Your task to perform on an android device: find photos in the google photos app Image 0: 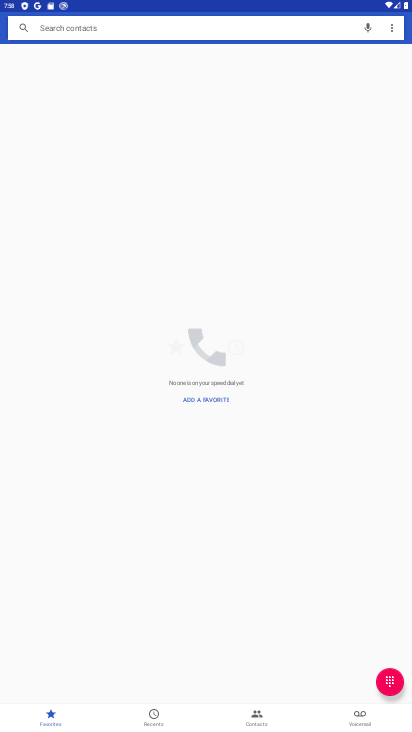
Step 0: press home button
Your task to perform on an android device: find photos in the google photos app Image 1: 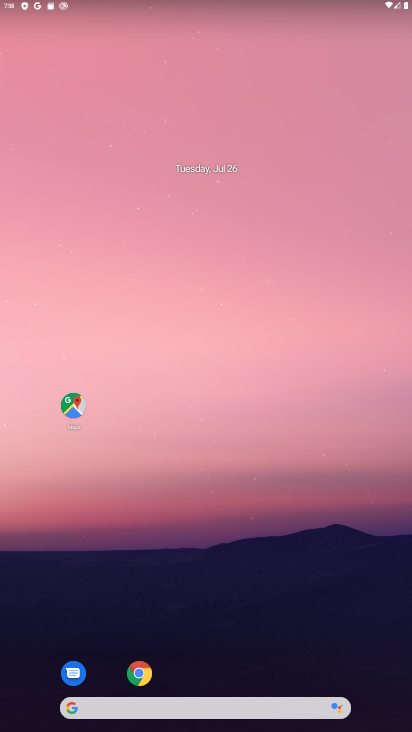
Step 1: drag from (231, 663) to (264, 175)
Your task to perform on an android device: find photos in the google photos app Image 2: 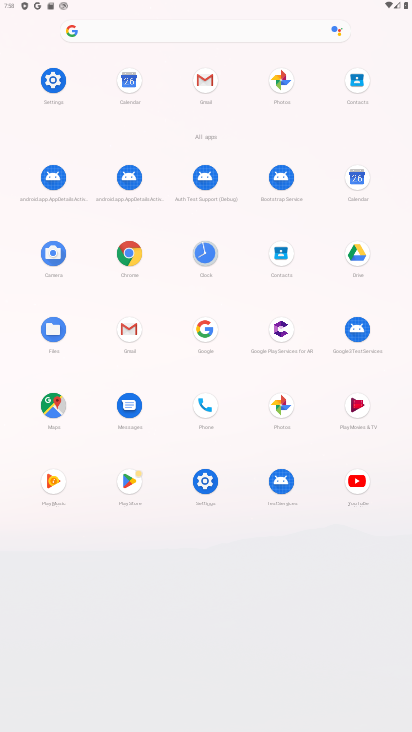
Step 2: click (280, 86)
Your task to perform on an android device: find photos in the google photos app Image 3: 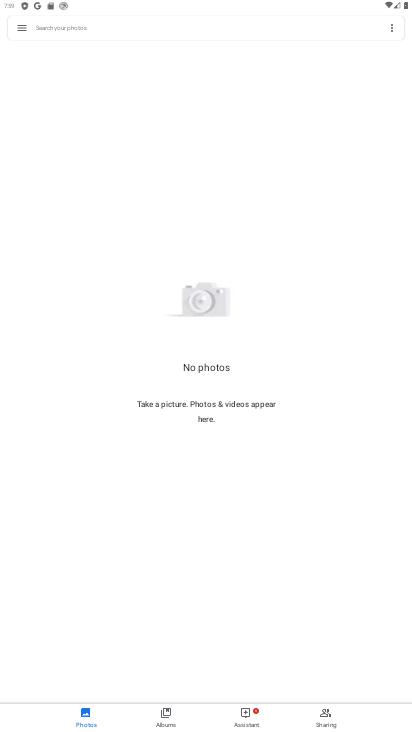
Step 3: click (59, 27)
Your task to perform on an android device: find photos in the google photos app Image 4: 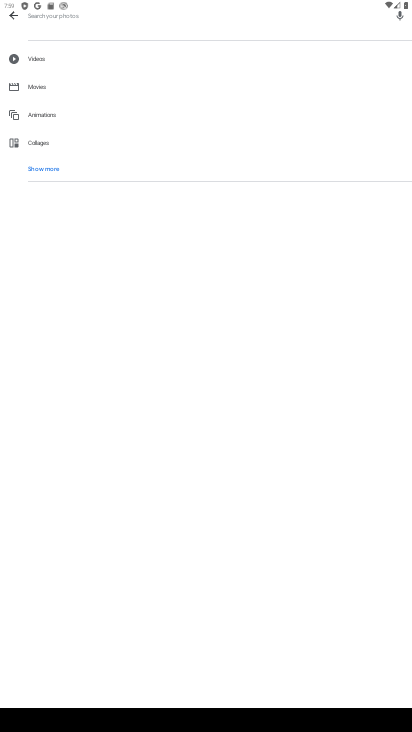
Step 4: type "aaa"
Your task to perform on an android device: find photos in the google photos app Image 5: 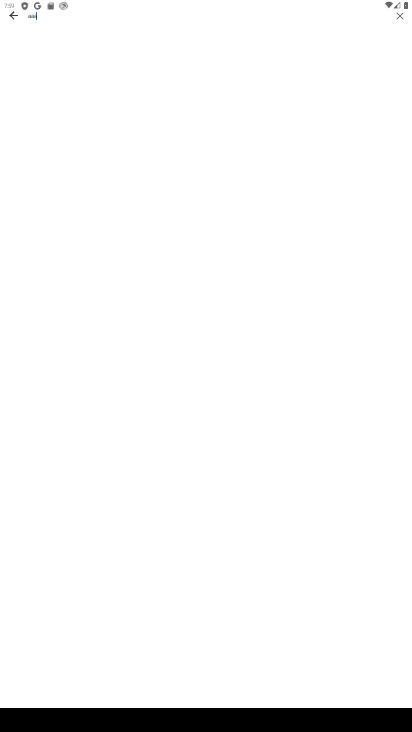
Step 5: task complete